Your task to perform on an android device: What's the weather going to be this weekend? Image 0: 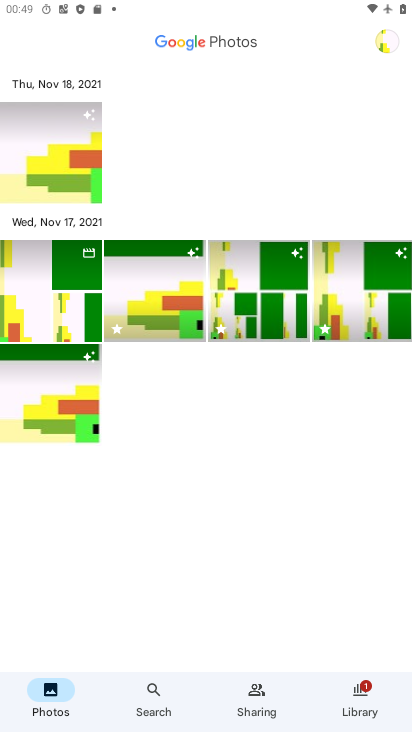
Step 0: press home button
Your task to perform on an android device: What's the weather going to be this weekend? Image 1: 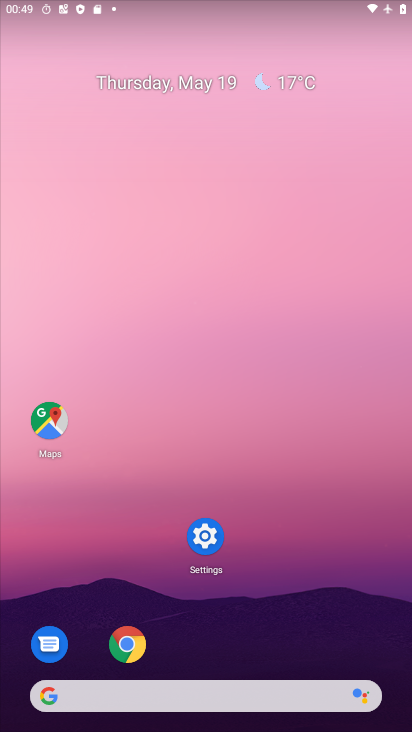
Step 1: click (294, 72)
Your task to perform on an android device: What's the weather going to be this weekend? Image 2: 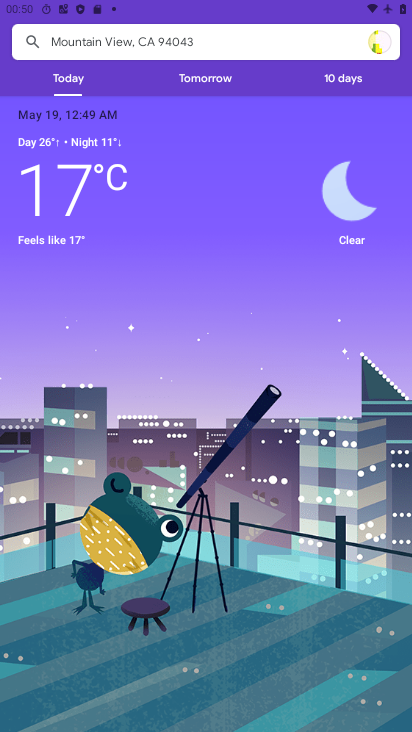
Step 2: click (340, 100)
Your task to perform on an android device: What's the weather going to be this weekend? Image 3: 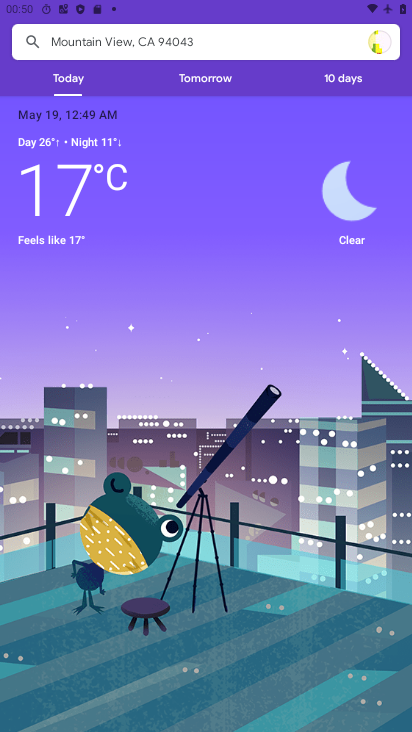
Step 3: click (338, 84)
Your task to perform on an android device: What's the weather going to be this weekend? Image 4: 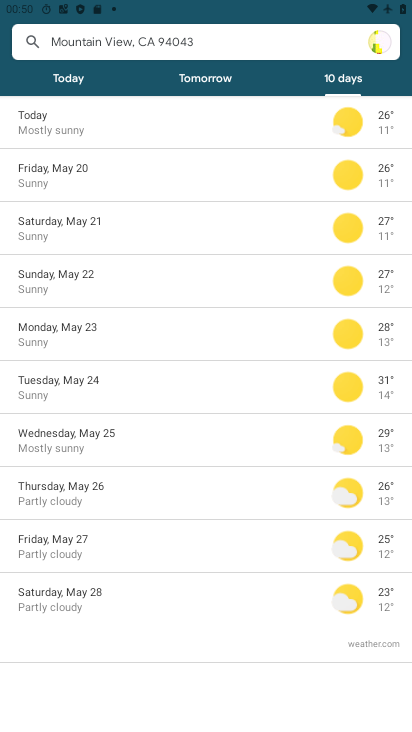
Step 4: task complete